Your task to perform on an android device: Open calendar and show me the first week of next month Image 0: 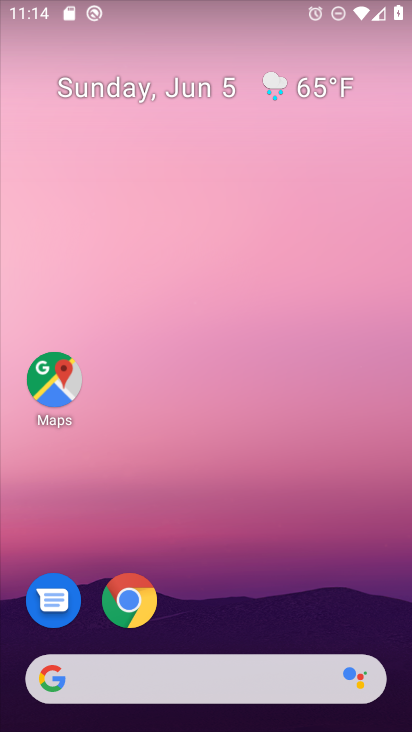
Step 0: drag from (380, 613) to (213, 41)
Your task to perform on an android device: Open calendar and show me the first week of next month Image 1: 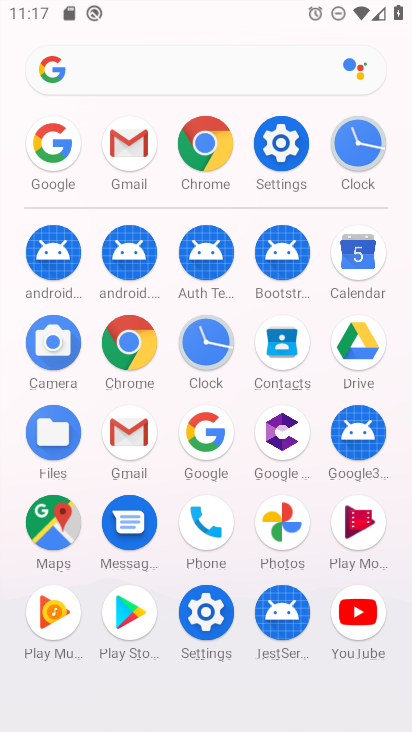
Step 1: click (348, 261)
Your task to perform on an android device: Open calendar and show me the first week of next month Image 2: 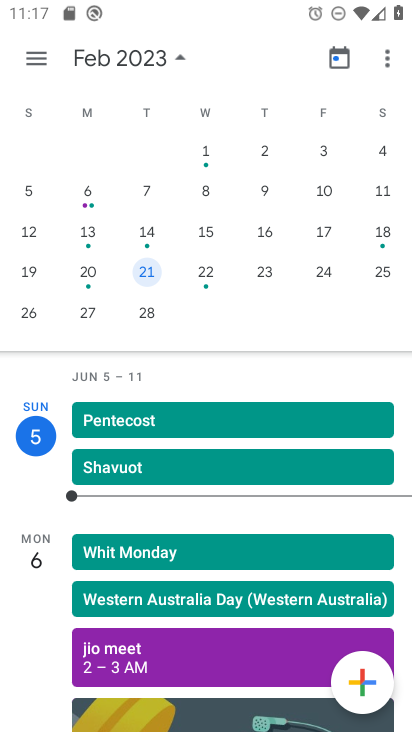
Step 2: drag from (355, 223) to (19, 162)
Your task to perform on an android device: Open calendar and show me the first week of next month Image 3: 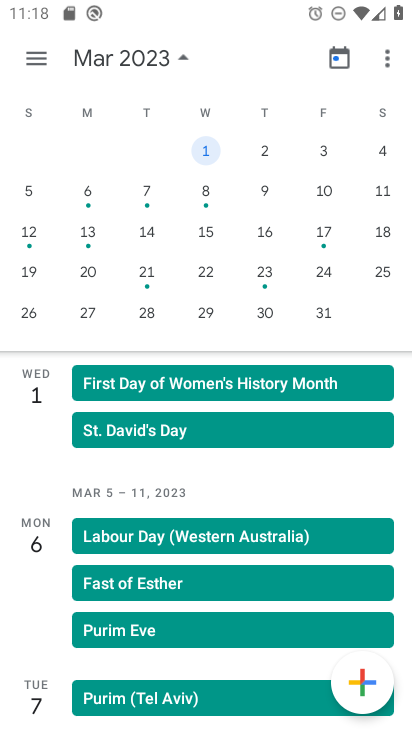
Step 3: click (76, 194)
Your task to perform on an android device: Open calendar and show me the first week of next month Image 4: 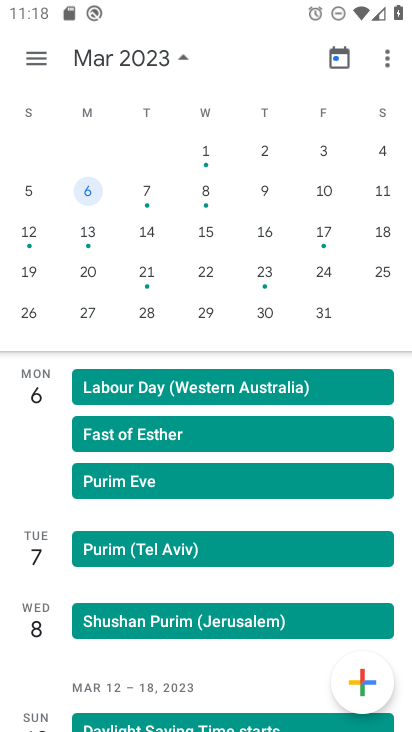
Step 4: task complete